Your task to perform on an android device: Open the web browser Image 0: 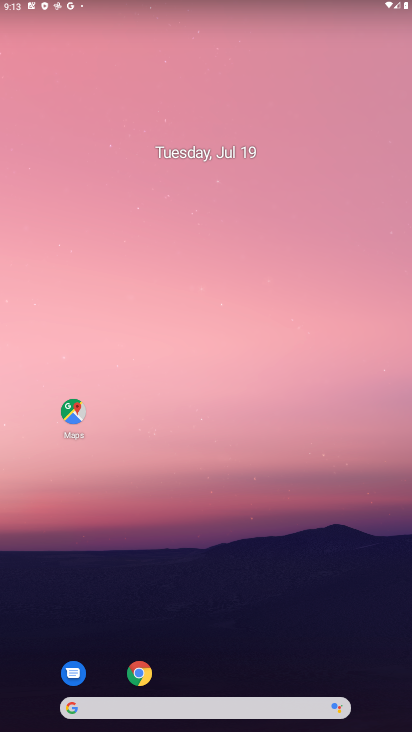
Step 0: click (150, 674)
Your task to perform on an android device: Open the web browser Image 1: 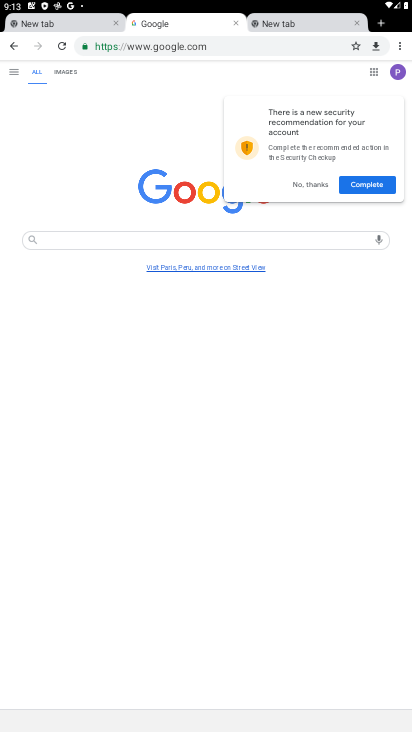
Step 1: click (352, 182)
Your task to perform on an android device: Open the web browser Image 2: 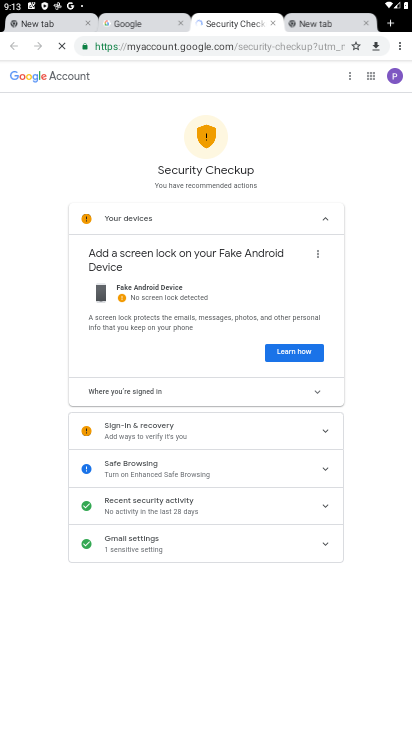
Step 2: task complete